Your task to perform on an android device: Open maps Image 0: 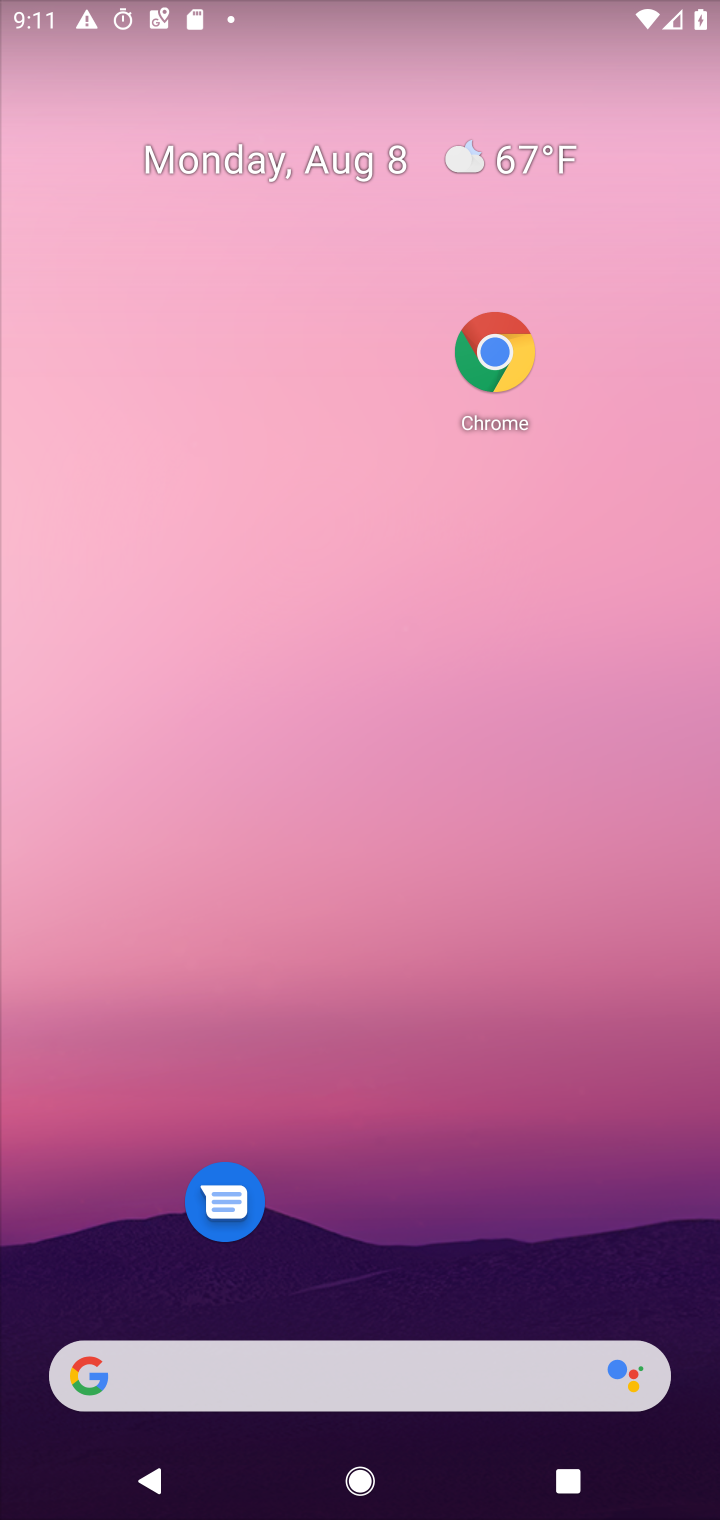
Step 0: drag from (447, 1237) to (587, 0)
Your task to perform on an android device: Open maps Image 1: 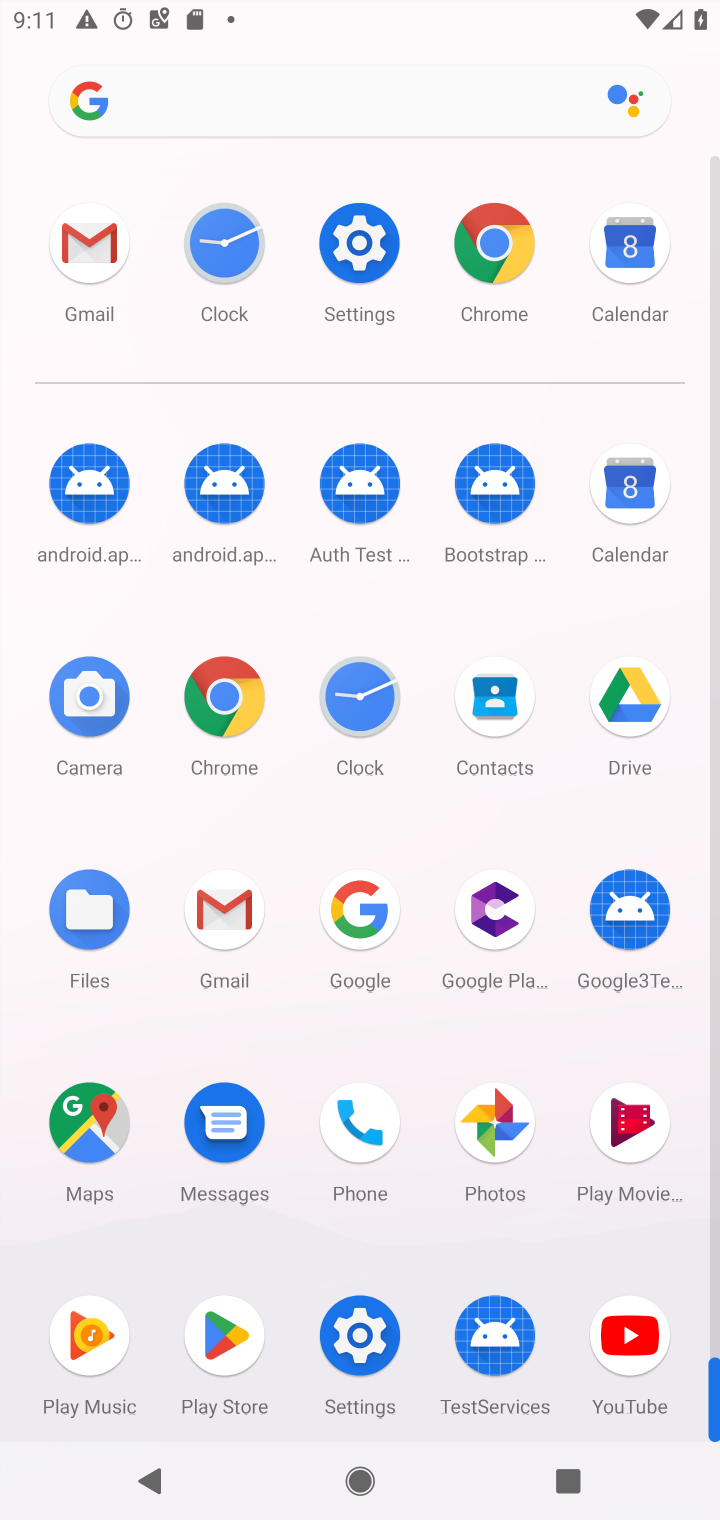
Step 1: click (89, 1119)
Your task to perform on an android device: Open maps Image 2: 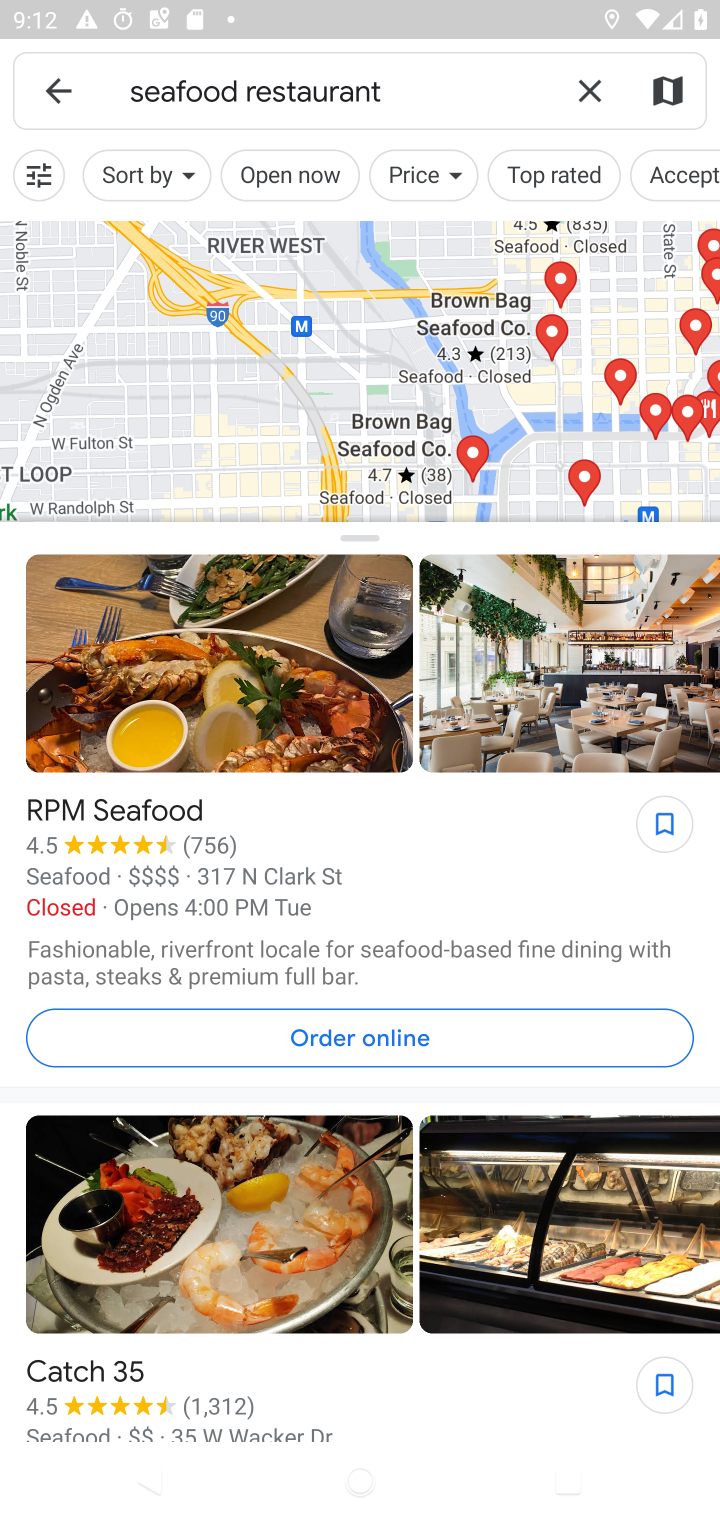
Step 2: task complete